Your task to perform on an android device: remove spam from my inbox in the gmail app Image 0: 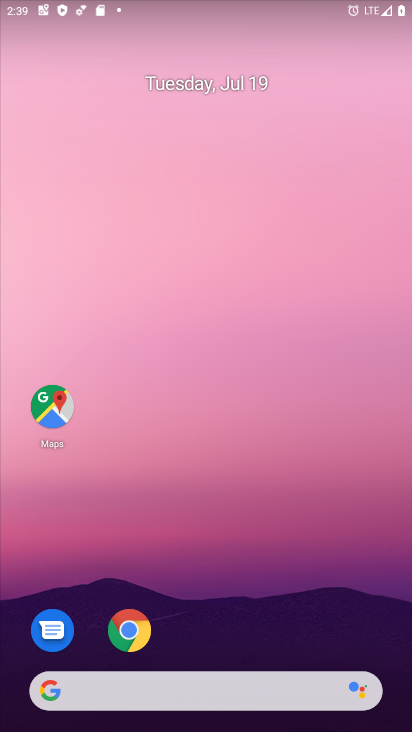
Step 0: press home button
Your task to perform on an android device: remove spam from my inbox in the gmail app Image 1: 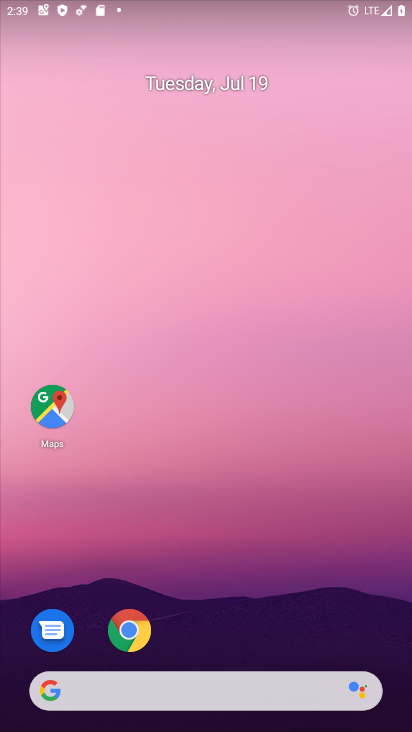
Step 1: drag from (219, 645) to (226, 60)
Your task to perform on an android device: remove spam from my inbox in the gmail app Image 2: 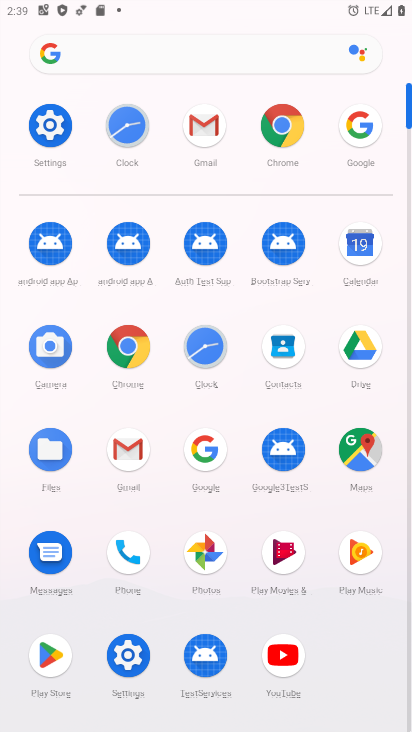
Step 2: click (202, 114)
Your task to perform on an android device: remove spam from my inbox in the gmail app Image 3: 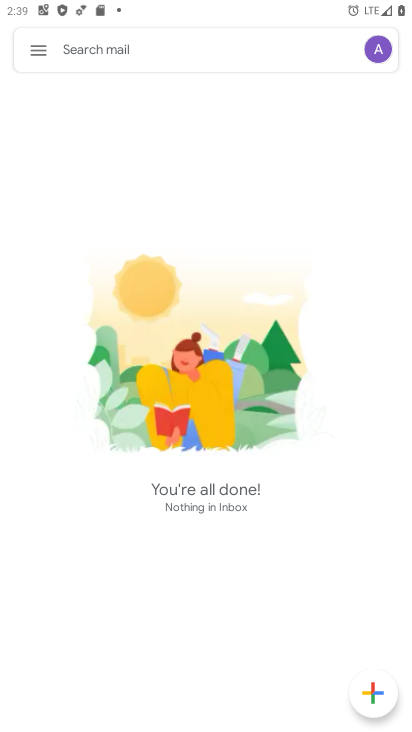
Step 3: click (40, 44)
Your task to perform on an android device: remove spam from my inbox in the gmail app Image 4: 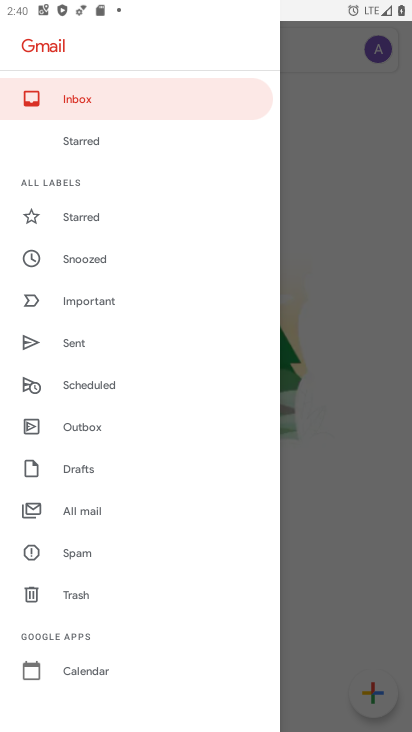
Step 4: click (102, 551)
Your task to perform on an android device: remove spam from my inbox in the gmail app Image 5: 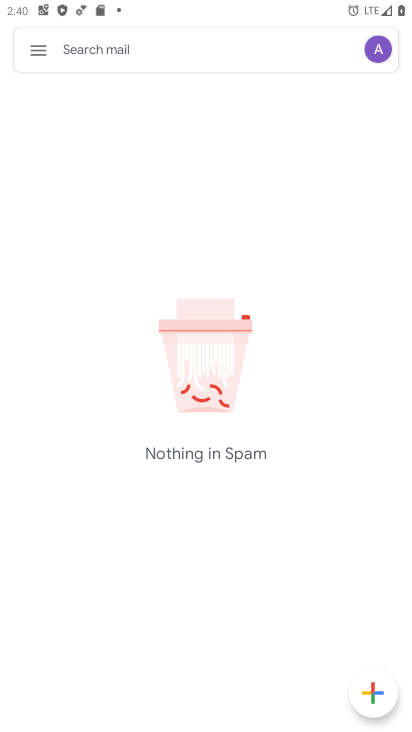
Step 5: task complete